Your task to perform on an android device: Add "razer deathadder" to the cart on ebay Image 0: 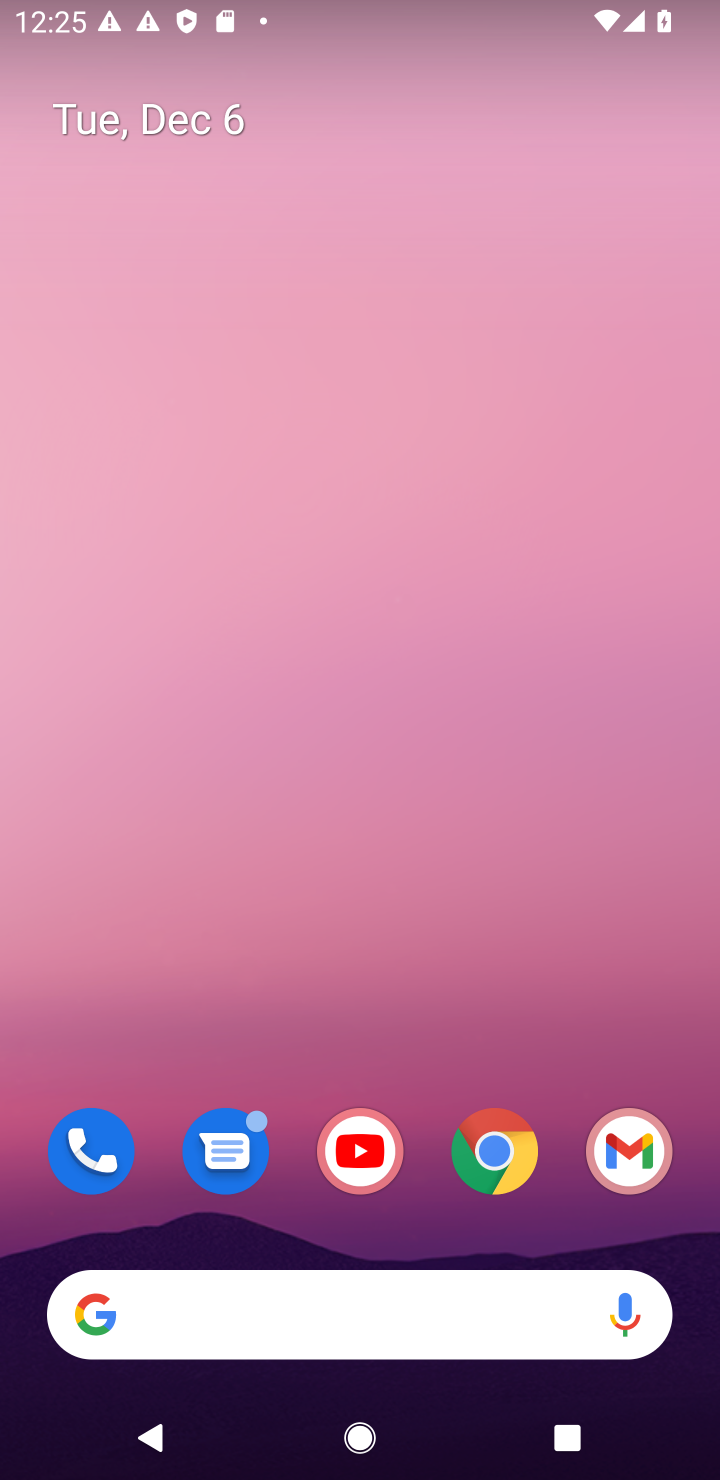
Step 0: click (514, 1158)
Your task to perform on an android device: Add "razer deathadder" to the cart on ebay Image 1: 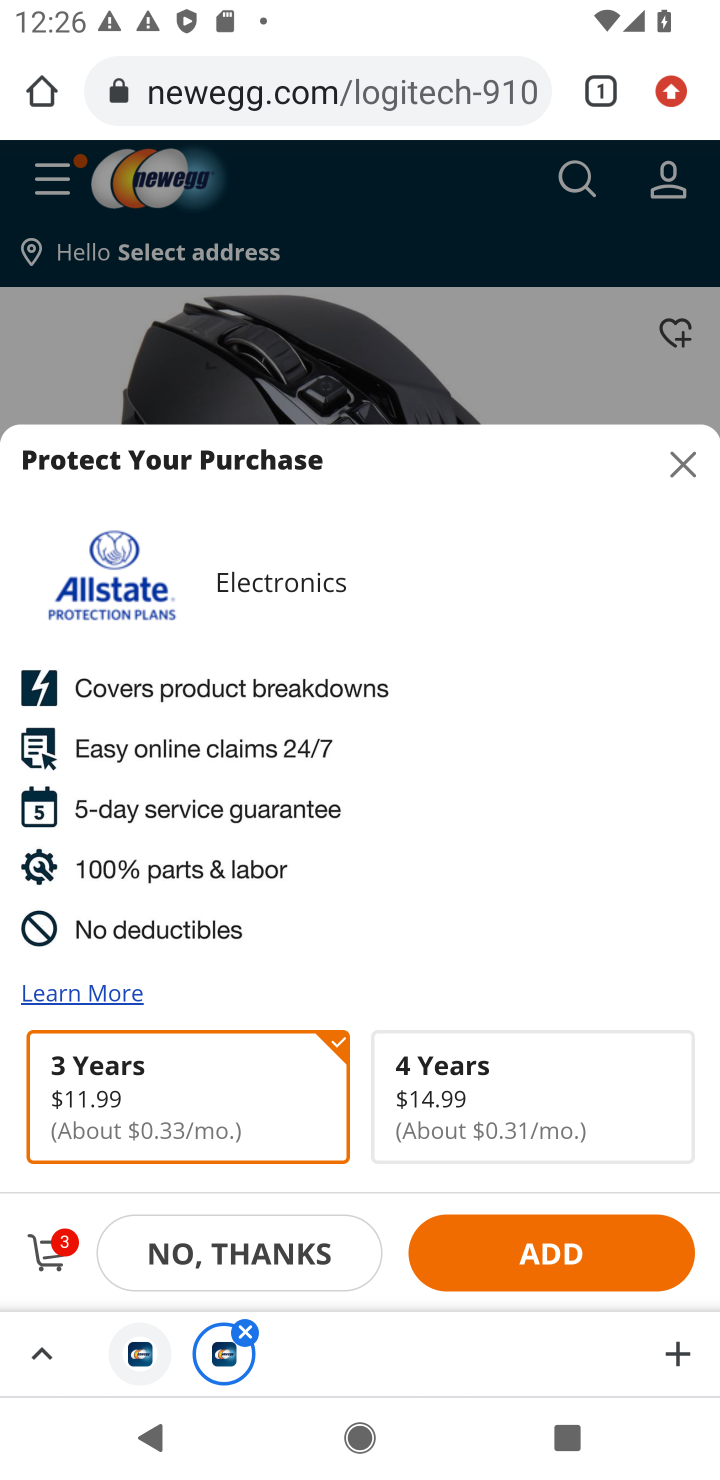
Step 1: click (224, 106)
Your task to perform on an android device: Add "razer deathadder" to the cart on ebay Image 2: 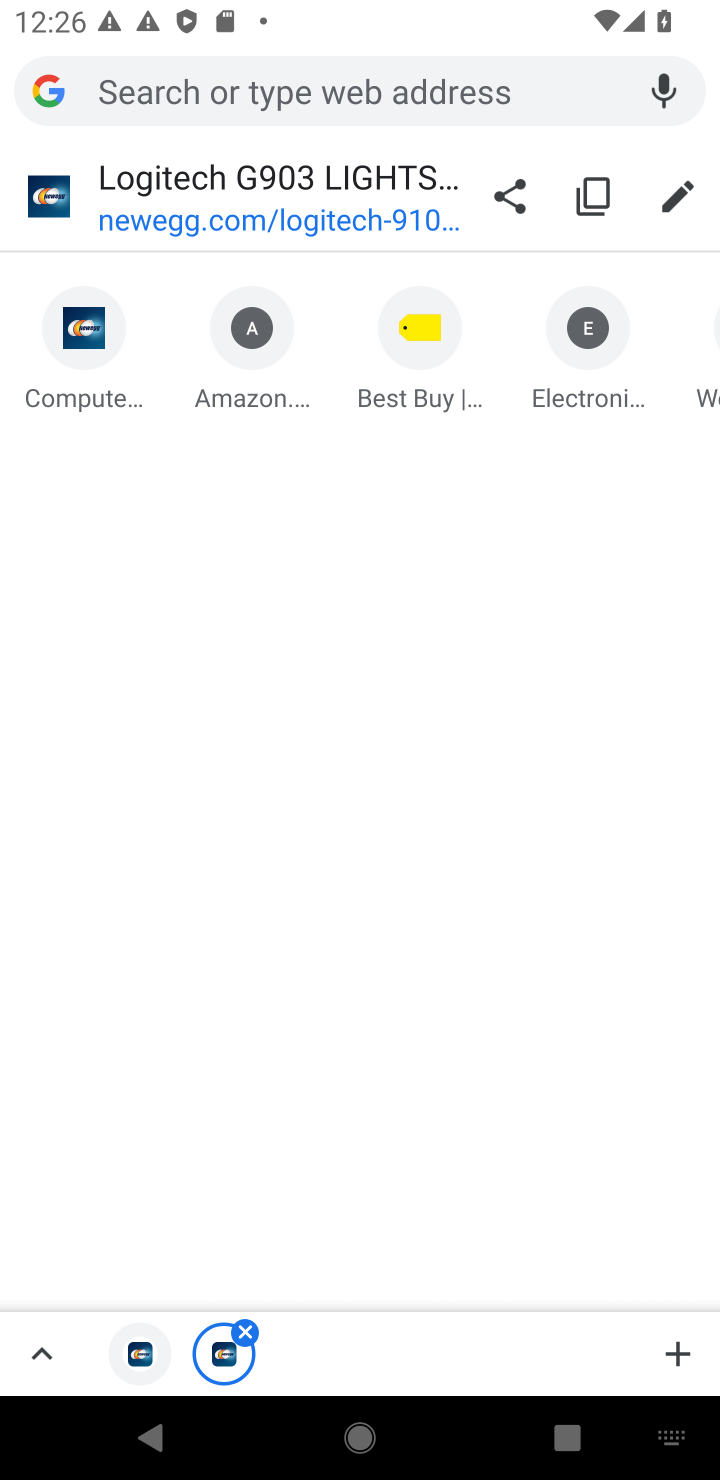
Step 2: type "ebay.com"
Your task to perform on an android device: Add "razer deathadder" to the cart on ebay Image 3: 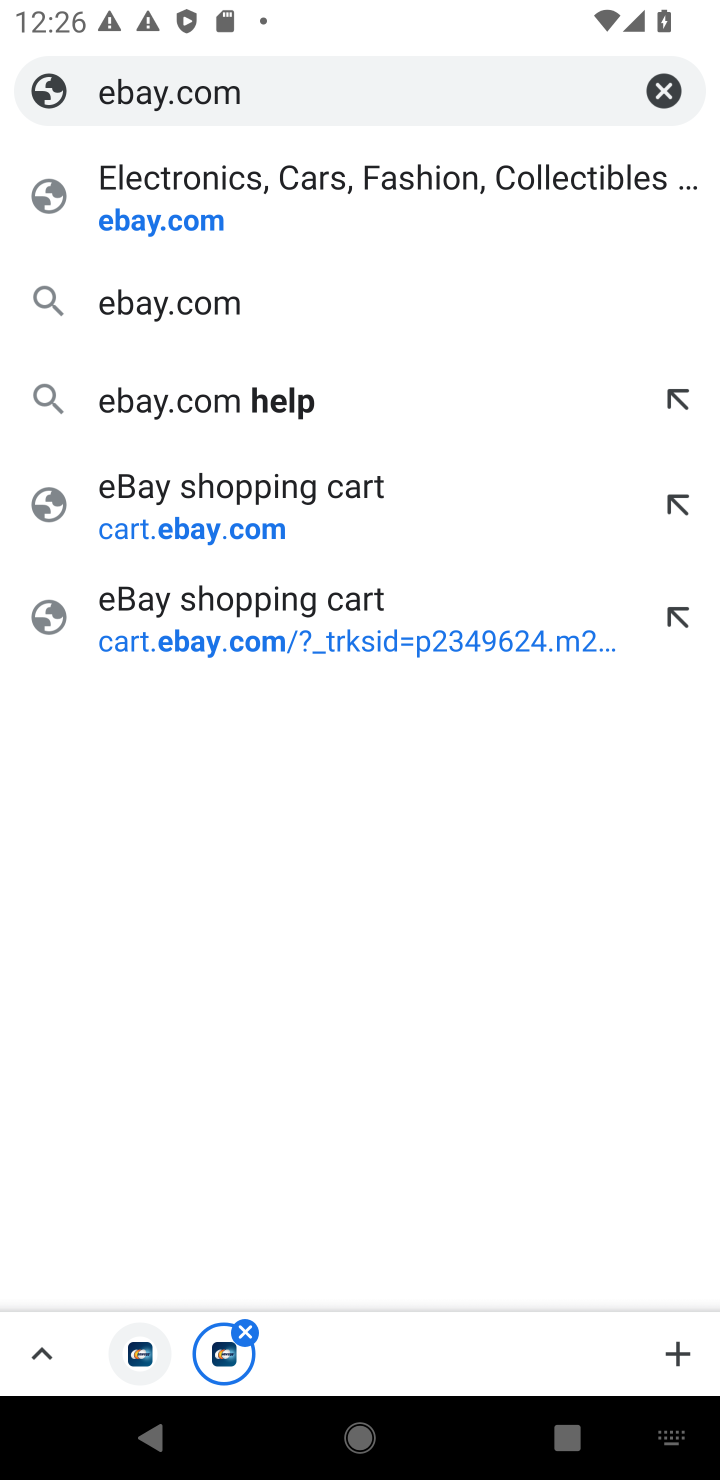
Step 3: click (174, 210)
Your task to perform on an android device: Add "razer deathadder" to the cart on ebay Image 4: 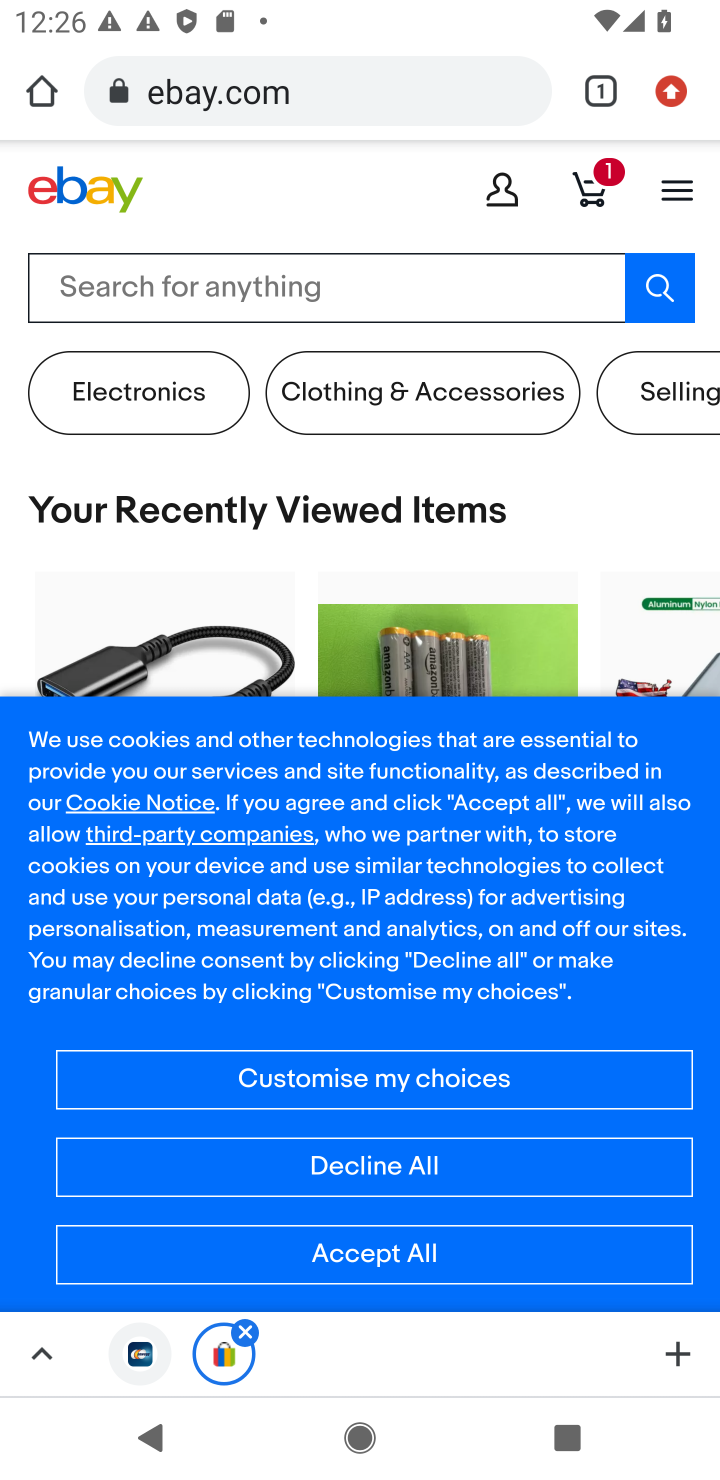
Step 4: click (95, 280)
Your task to perform on an android device: Add "razer deathadder" to the cart on ebay Image 5: 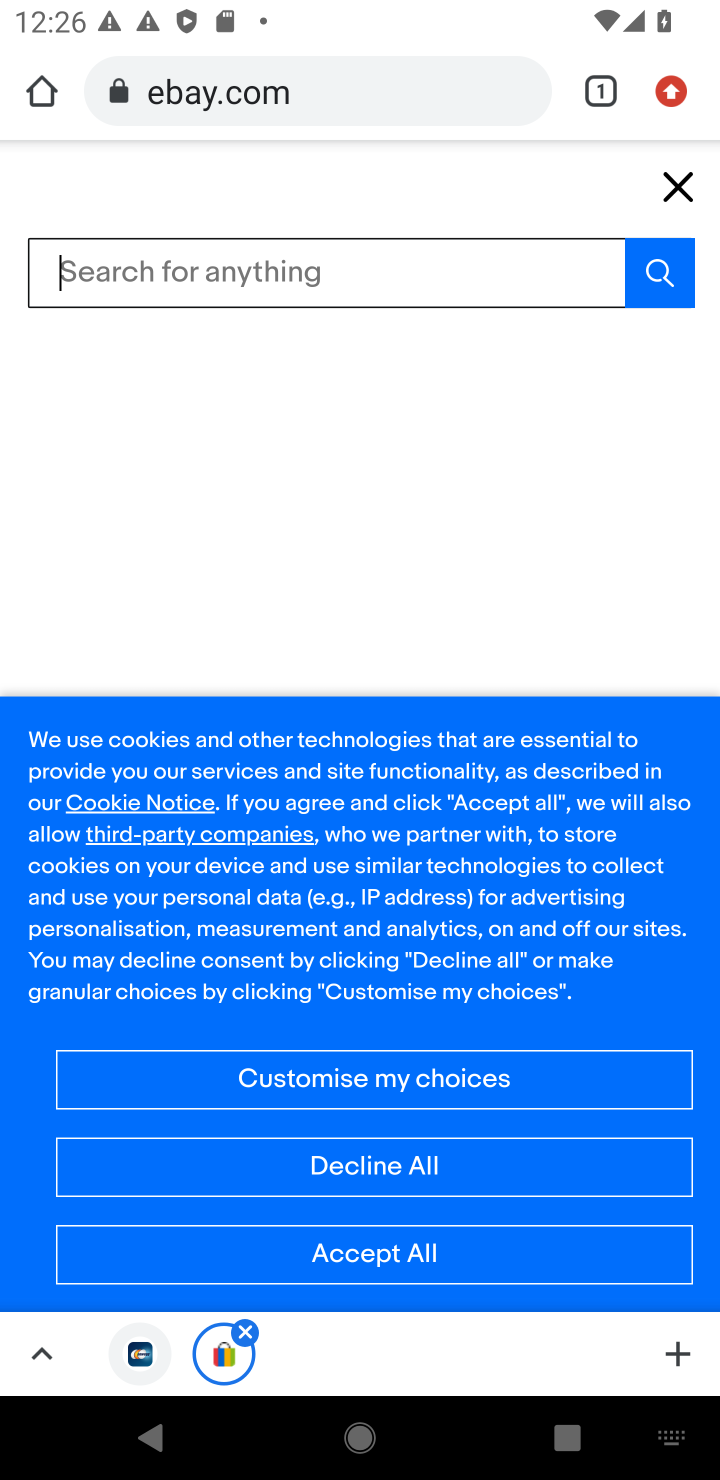
Step 5: type "razer deathadder"
Your task to perform on an android device: Add "razer deathadder" to the cart on ebay Image 6: 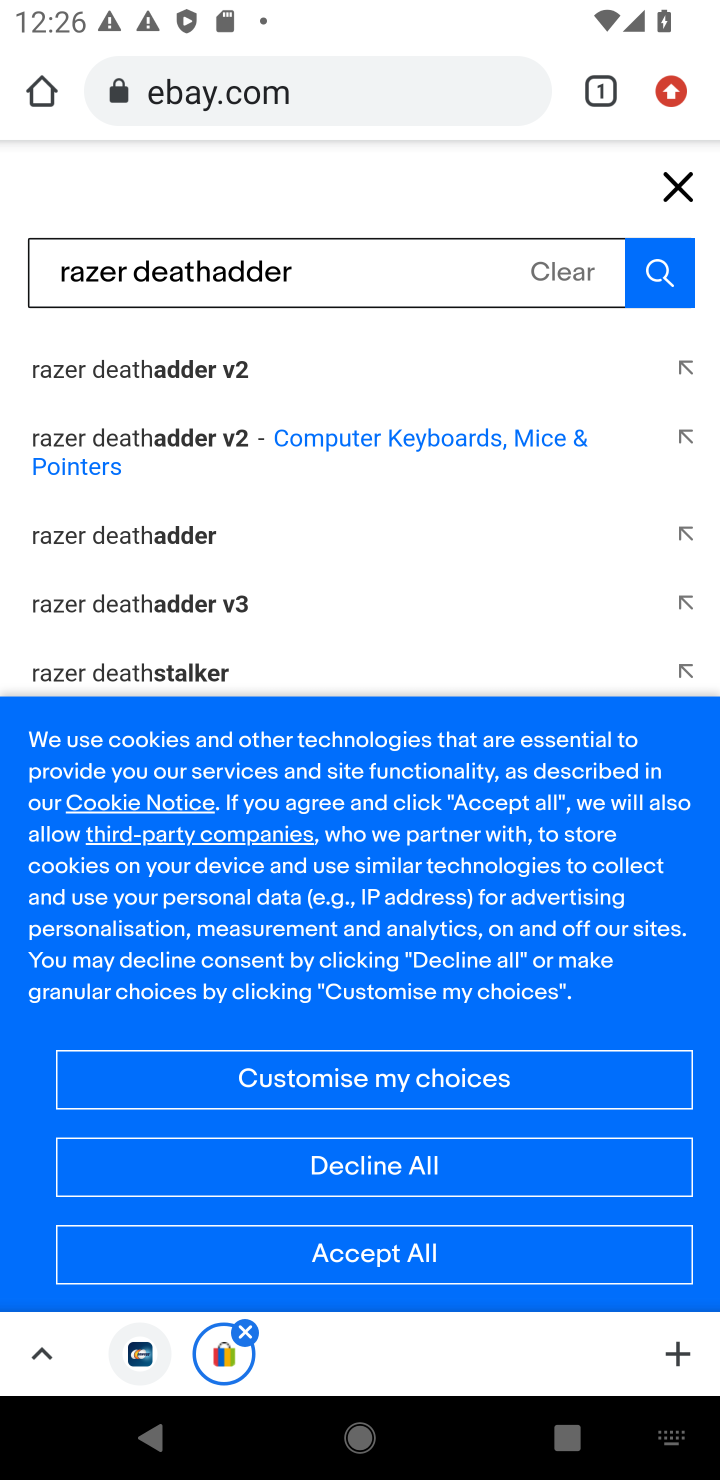
Step 6: click (135, 536)
Your task to perform on an android device: Add "razer deathadder" to the cart on ebay Image 7: 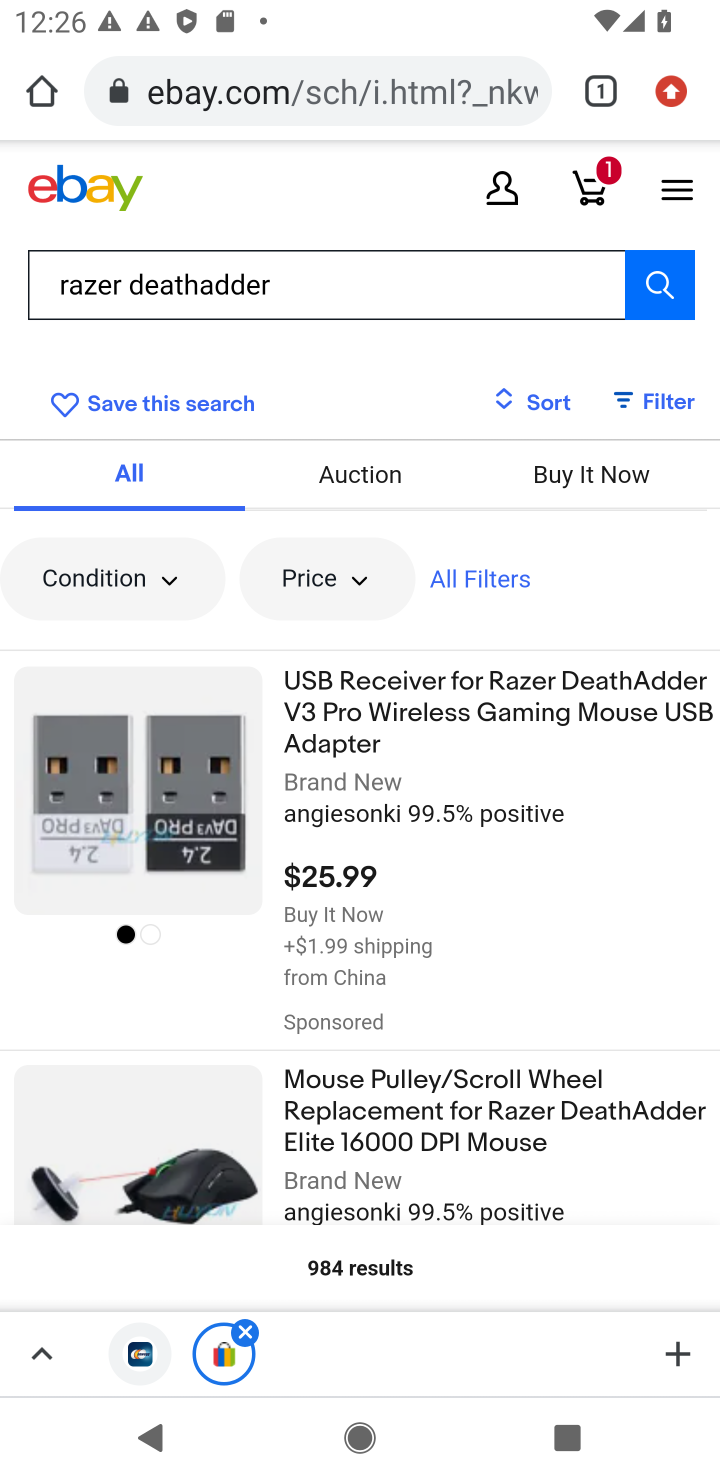
Step 7: click (366, 731)
Your task to perform on an android device: Add "razer deathadder" to the cart on ebay Image 8: 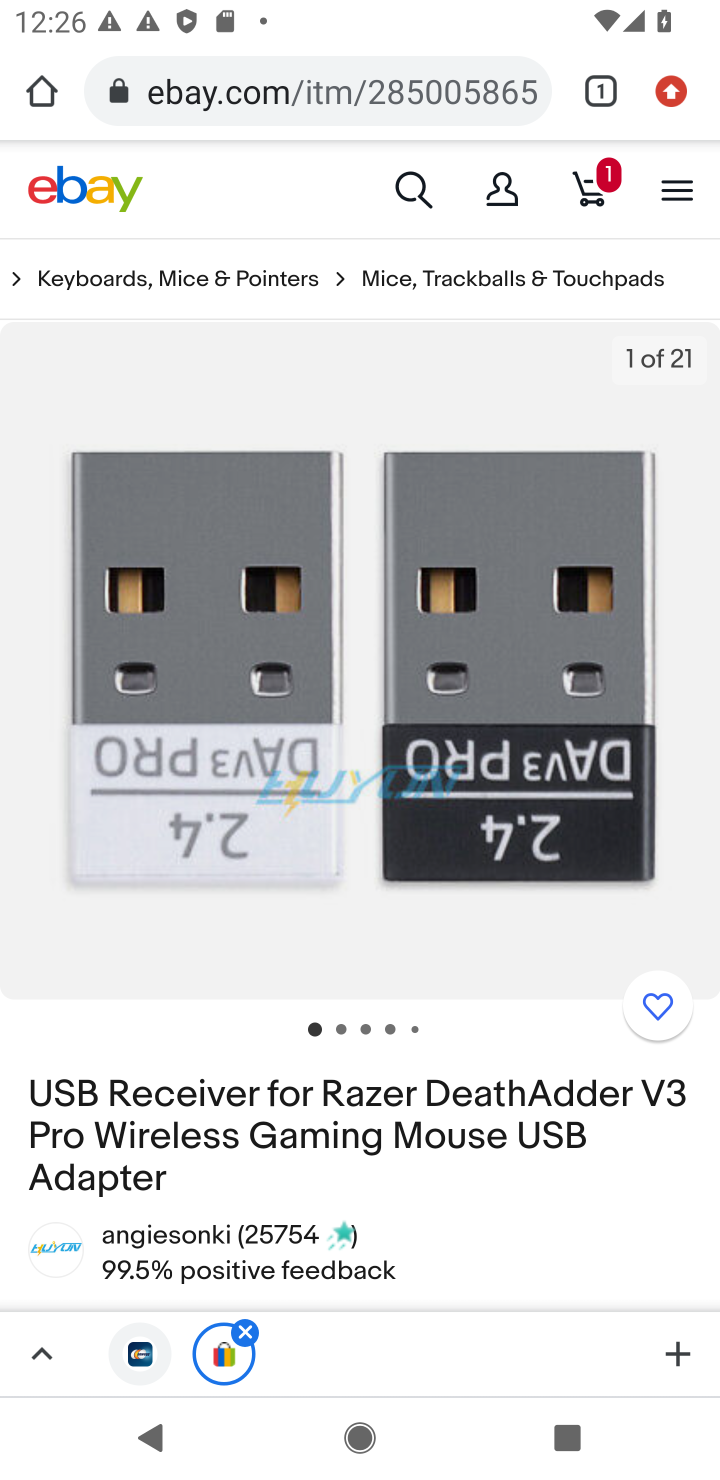
Step 8: drag from (330, 1130) to (338, 563)
Your task to perform on an android device: Add "razer deathadder" to the cart on ebay Image 9: 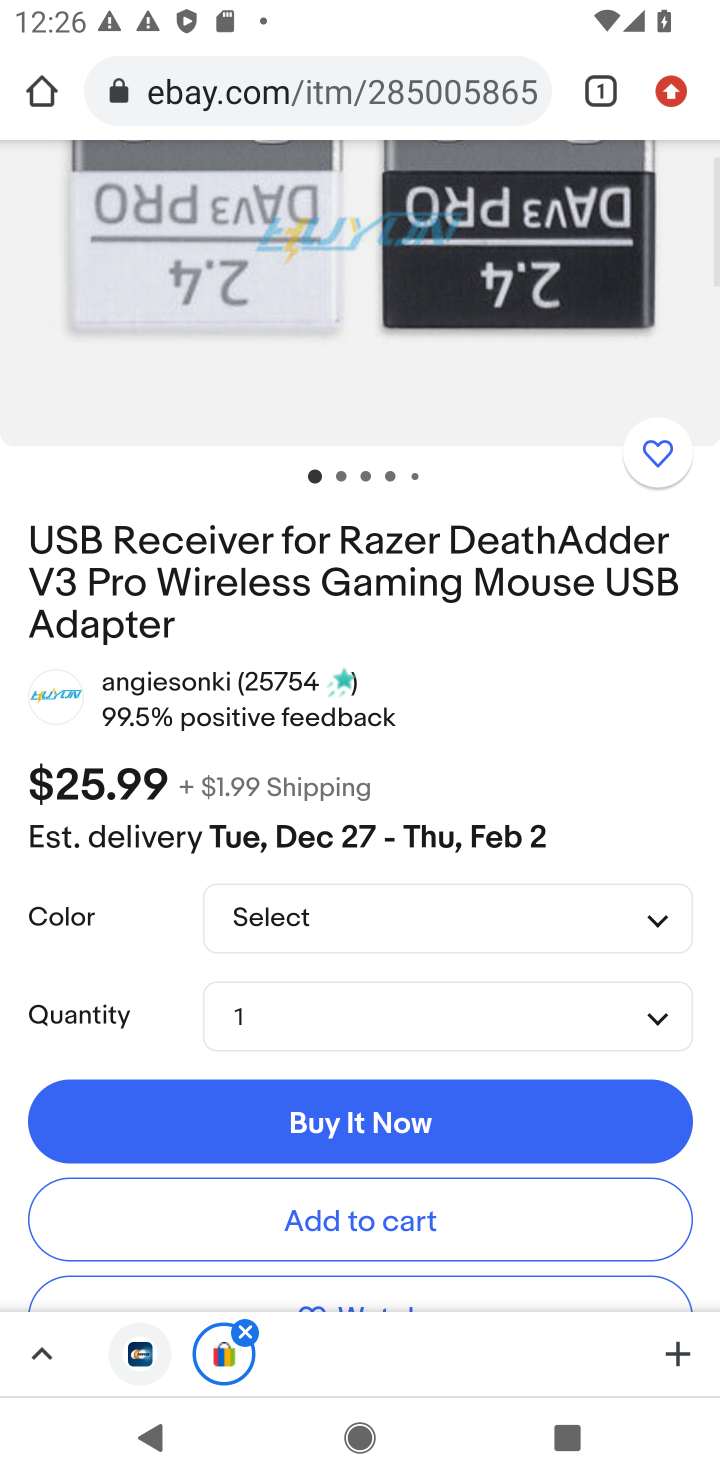
Step 9: drag from (399, 1113) to (399, 589)
Your task to perform on an android device: Add "razer deathadder" to the cart on ebay Image 10: 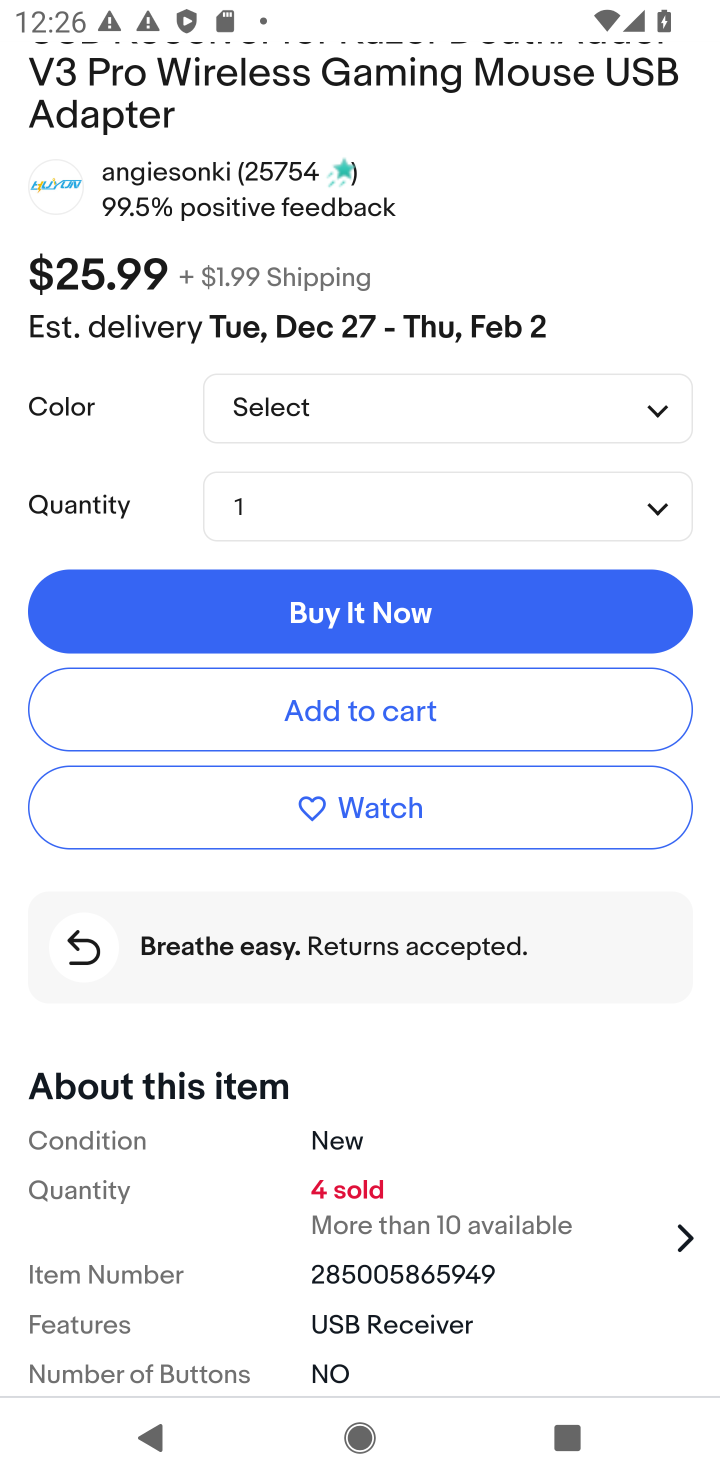
Step 10: click (372, 703)
Your task to perform on an android device: Add "razer deathadder" to the cart on ebay Image 11: 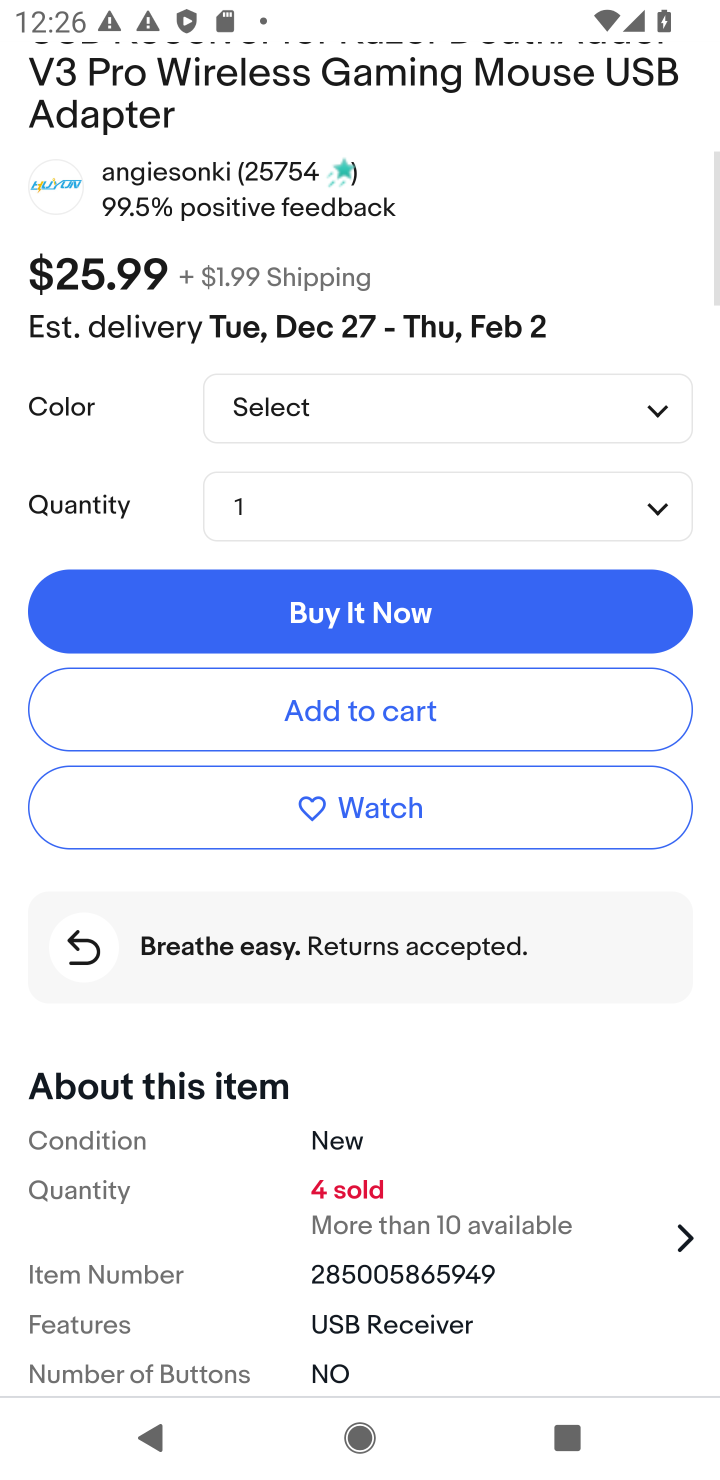
Step 11: click (336, 716)
Your task to perform on an android device: Add "razer deathadder" to the cart on ebay Image 12: 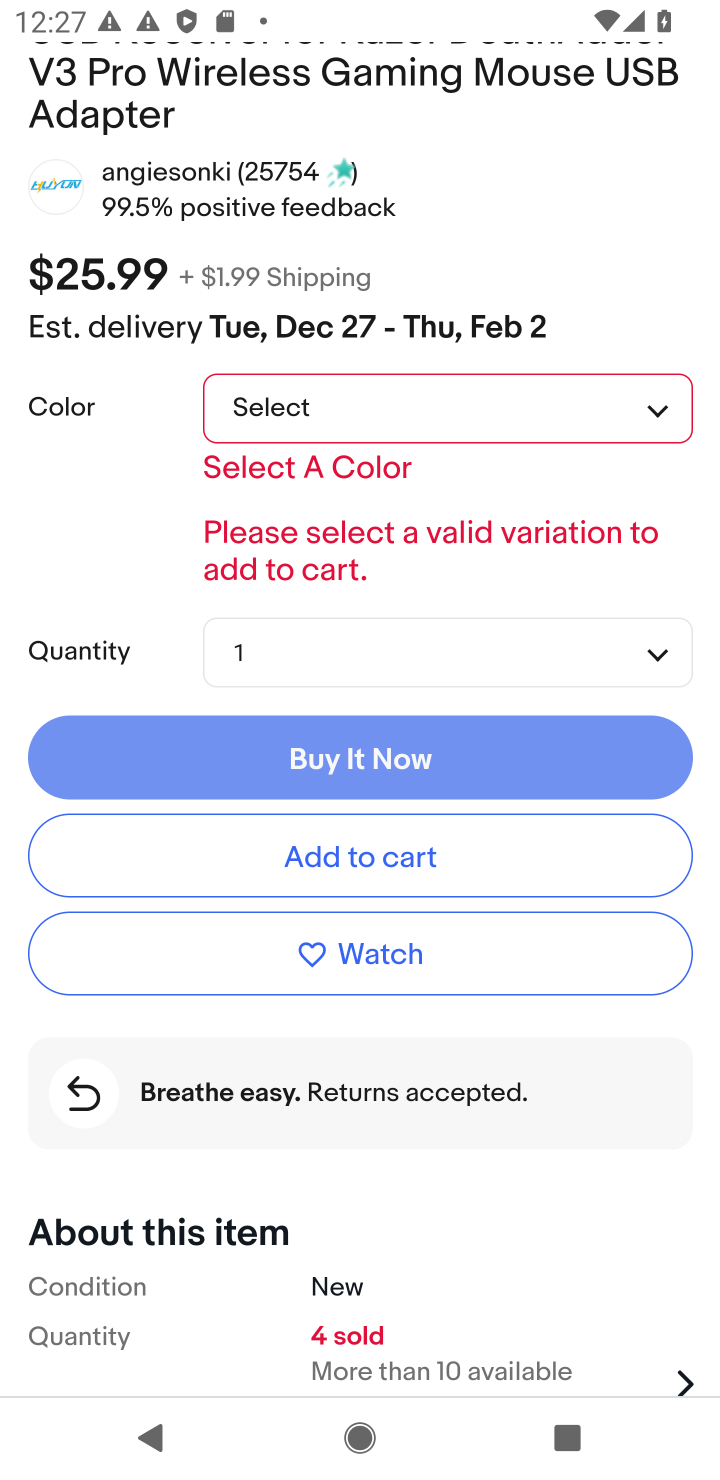
Step 12: click (670, 413)
Your task to perform on an android device: Add "razer deathadder" to the cart on ebay Image 13: 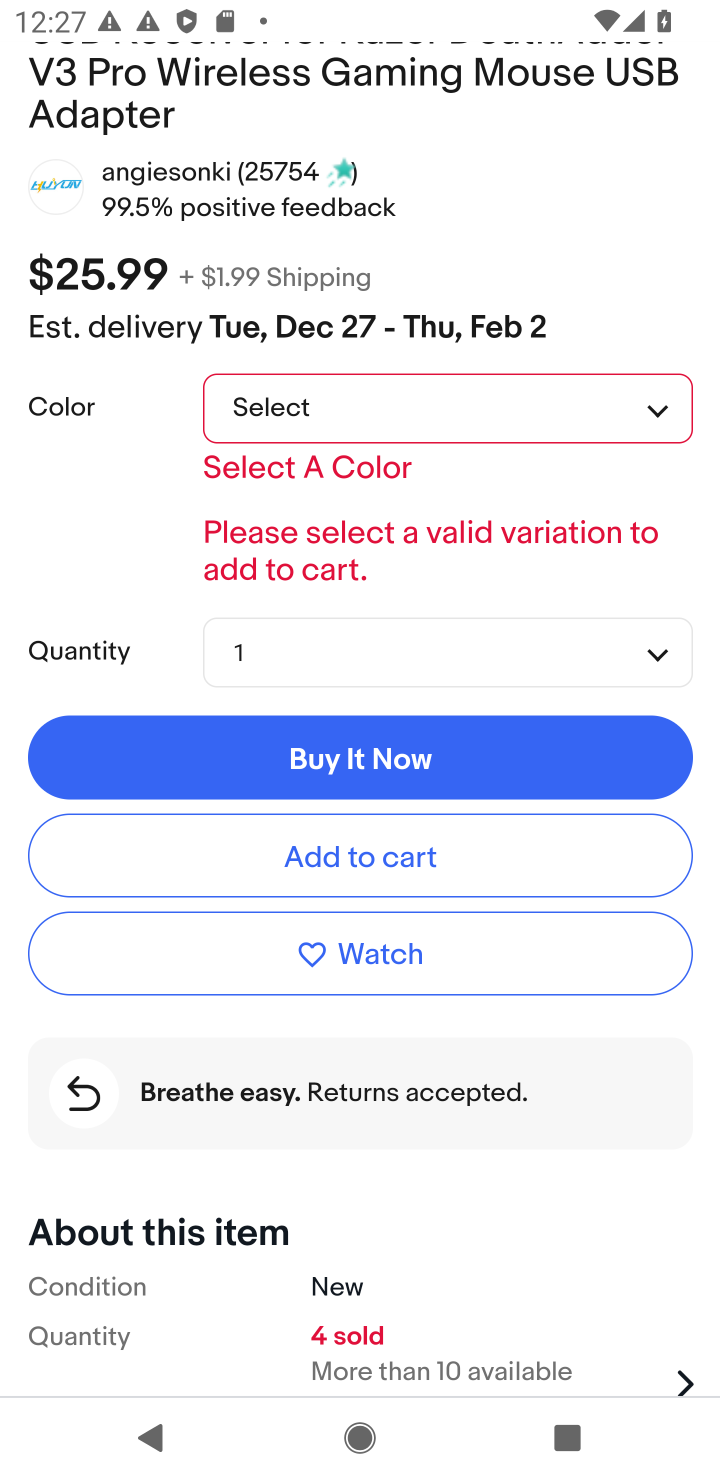
Step 13: click (660, 418)
Your task to perform on an android device: Add "razer deathadder" to the cart on ebay Image 14: 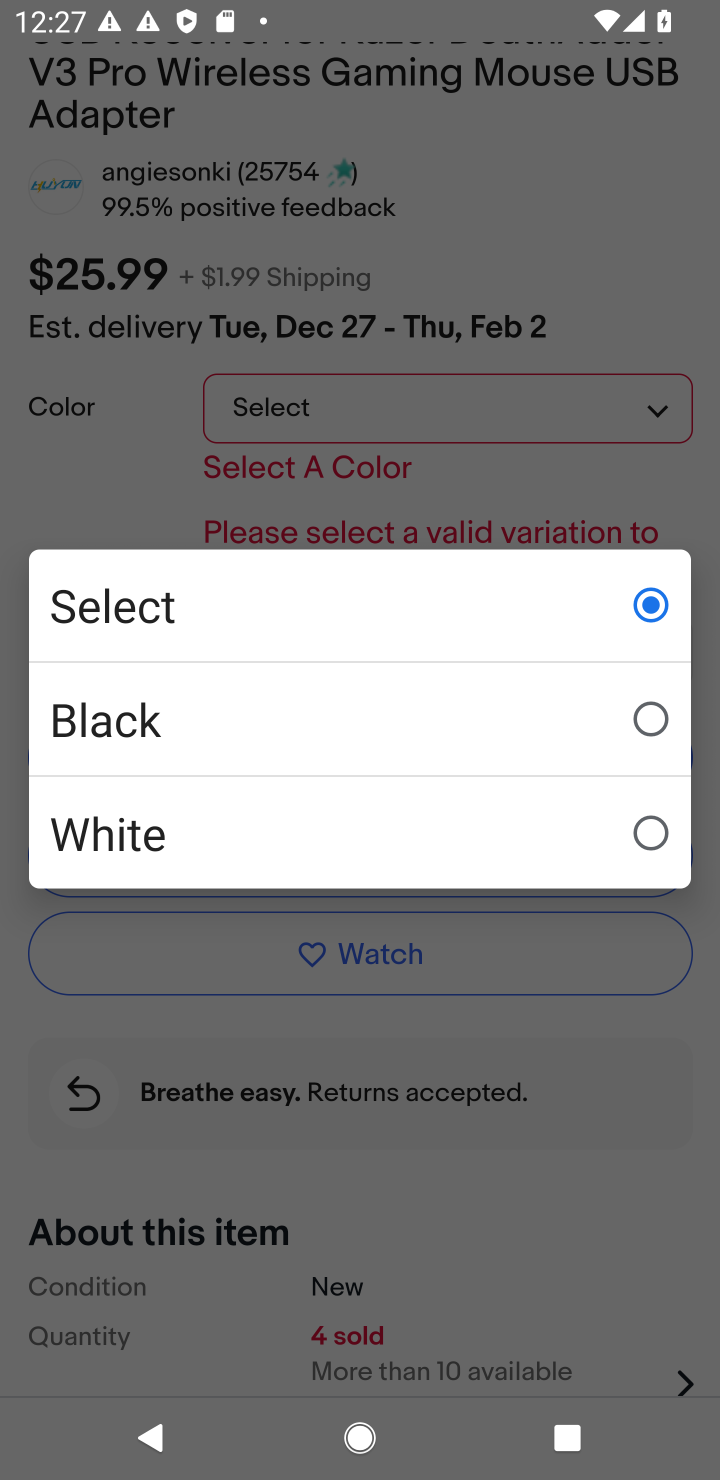
Step 14: click (87, 720)
Your task to perform on an android device: Add "razer deathadder" to the cart on ebay Image 15: 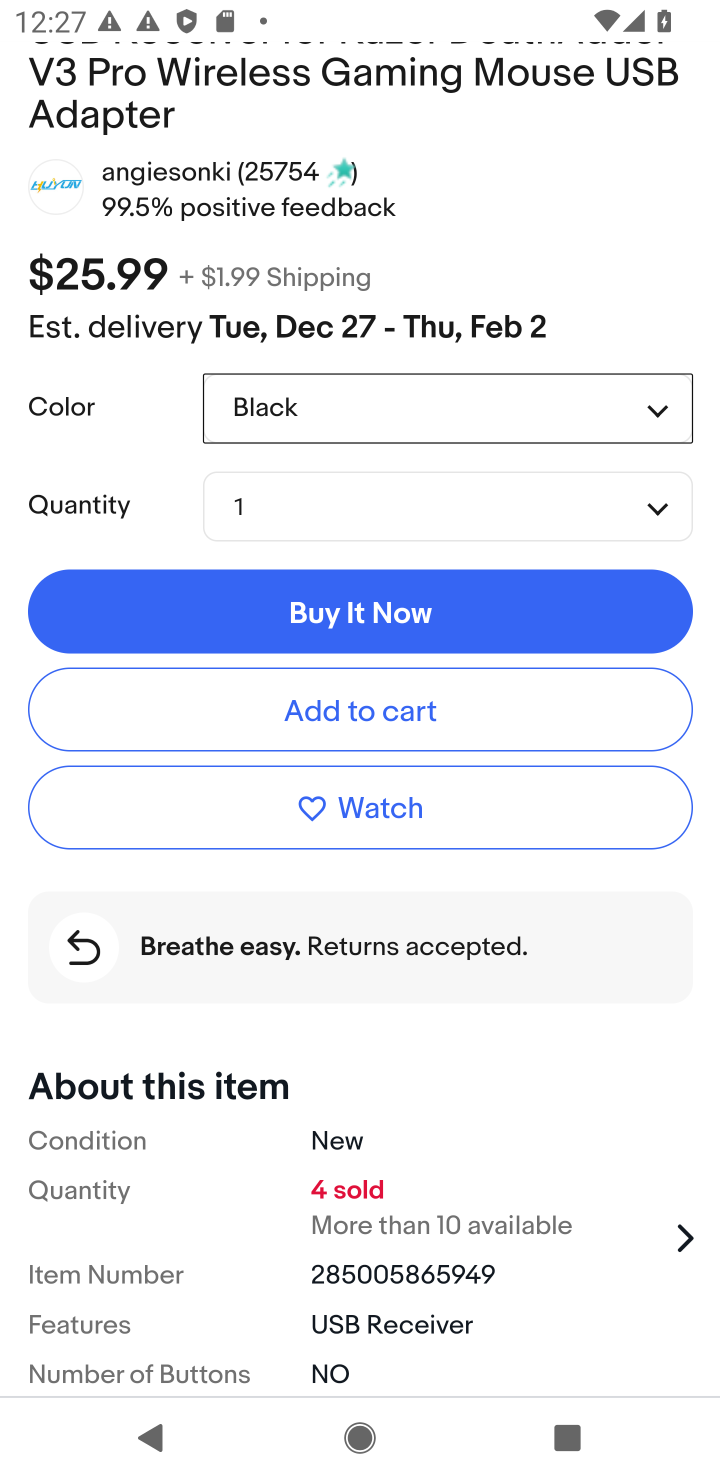
Step 15: click (296, 703)
Your task to perform on an android device: Add "razer deathadder" to the cart on ebay Image 16: 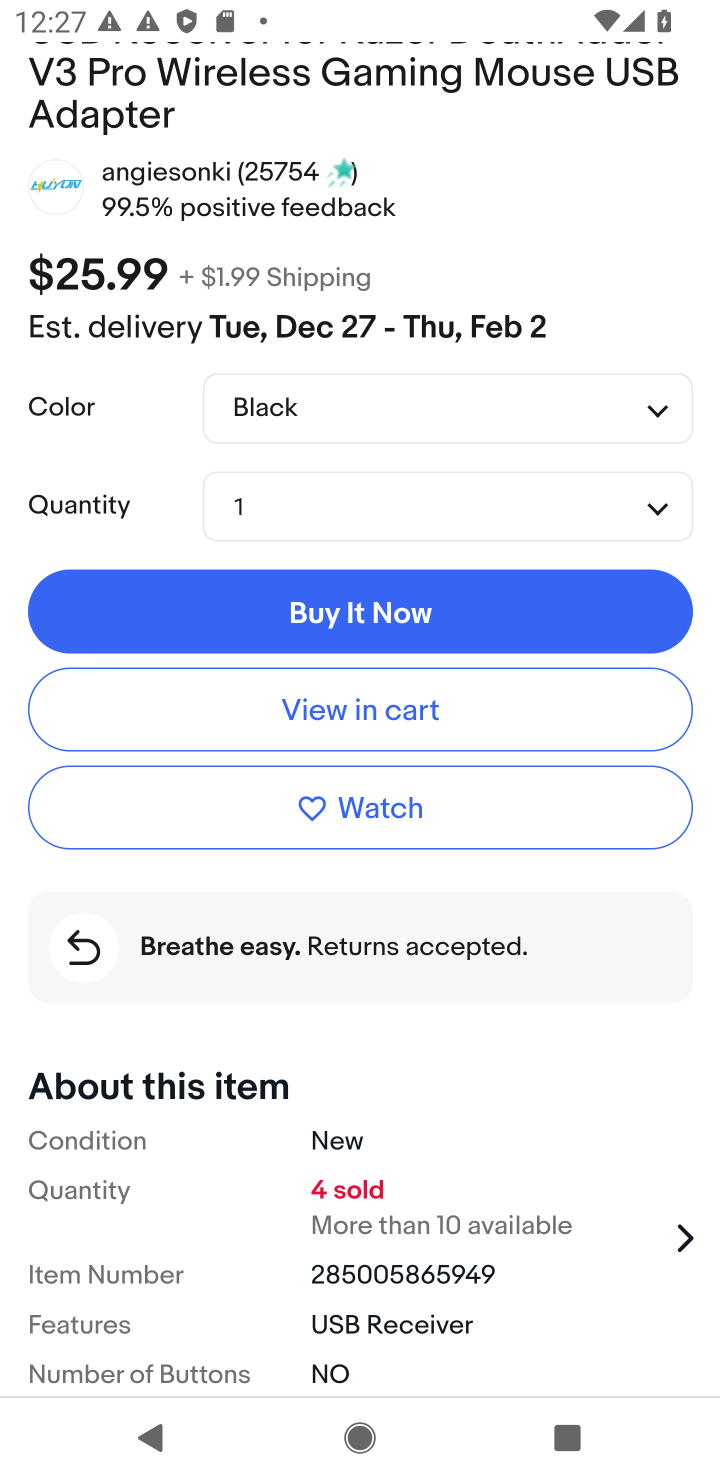
Step 16: task complete